Your task to perform on an android device: turn off priority inbox in the gmail app Image 0: 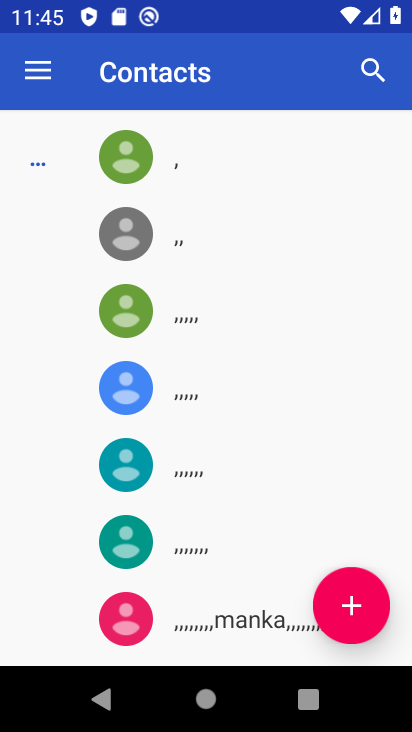
Step 0: press home button
Your task to perform on an android device: turn off priority inbox in the gmail app Image 1: 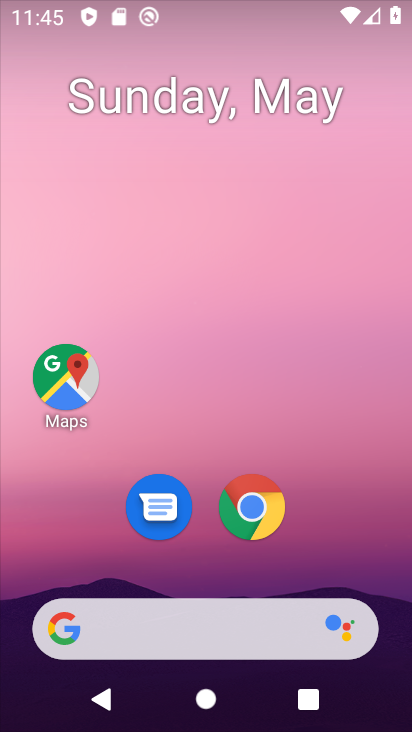
Step 1: drag from (231, 718) to (228, 182)
Your task to perform on an android device: turn off priority inbox in the gmail app Image 2: 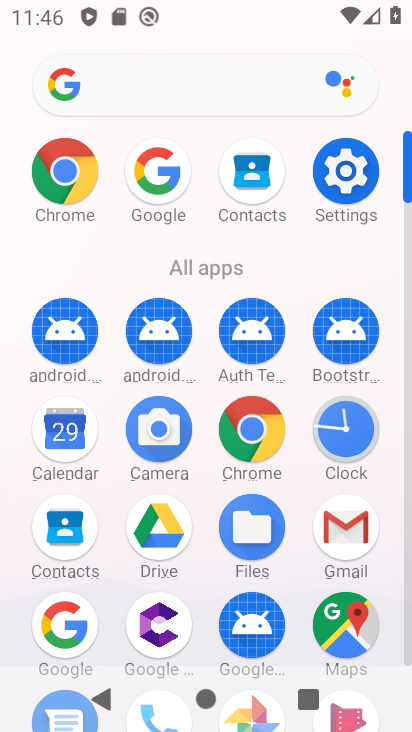
Step 2: click (346, 541)
Your task to perform on an android device: turn off priority inbox in the gmail app Image 3: 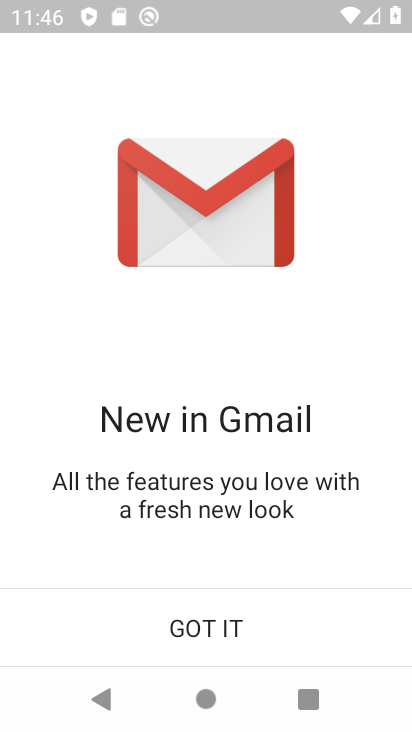
Step 3: click (191, 627)
Your task to perform on an android device: turn off priority inbox in the gmail app Image 4: 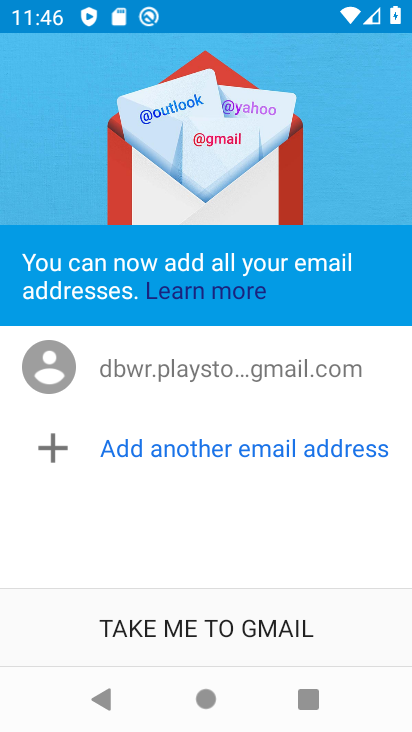
Step 4: click (191, 627)
Your task to perform on an android device: turn off priority inbox in the gmail app Image 5: 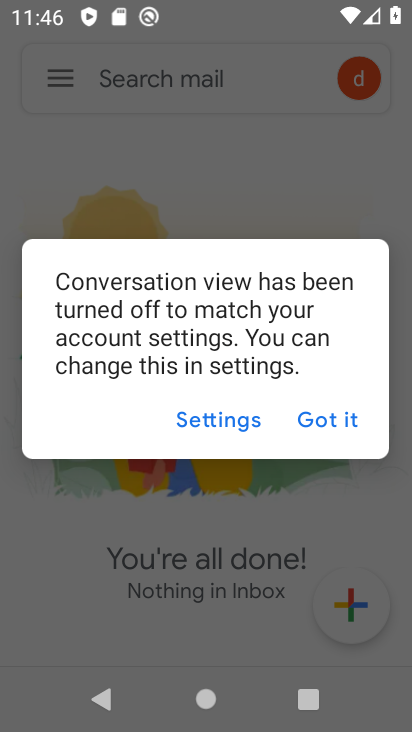
Step 5: click (321, 422)
Your task to perform on an android device: turn off priority inbox in the gmail app Image 6: 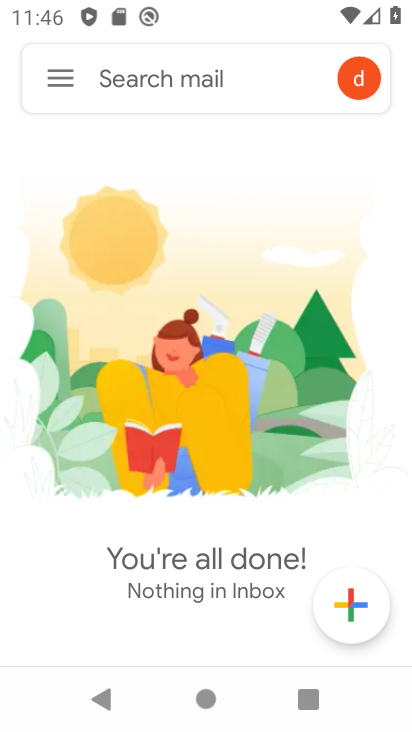
Step 6: click (62, 78)
Your task to perform on an android device: turn off priority inbox in the gmail app Image 7: 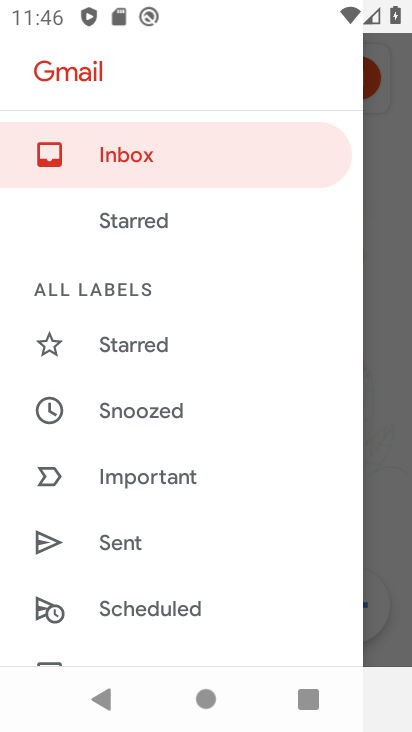
Step 7: drag from (138, 630) to (145, 84)
Your task to perform on an android device: turn off priority inbox in the gmail app Image 8: 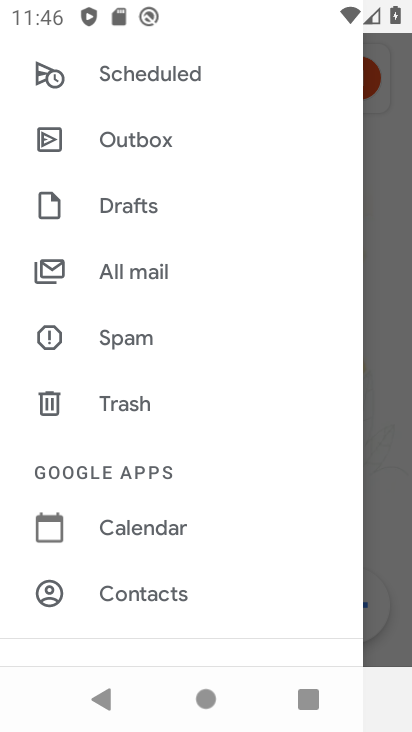
Step 8: drag from (128, 625) to (126, 153)
Your task to perform on an android device: turn off priority inbox in the gmail app Image 9: 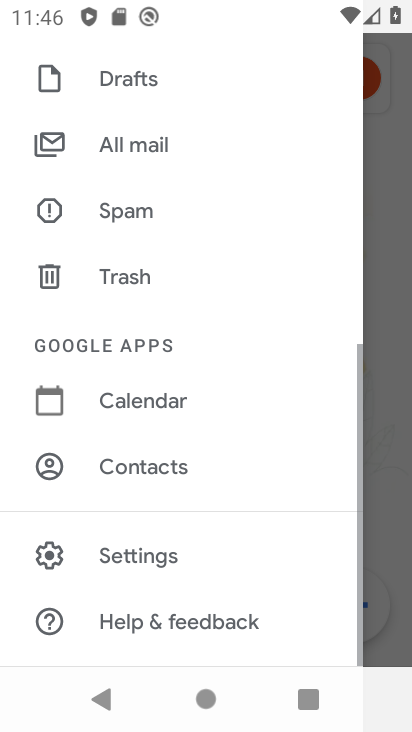
Step 9: click (156, 554)
Your task to perform on an android device: turn off priority inbox in the gmail app Image 10: 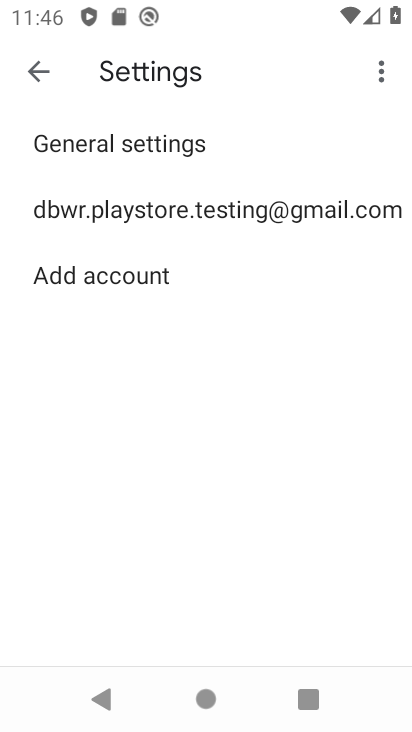
Step 10: click (203, 212)
Your task to perform on an android device: turn off priority inbox in the gmail app Image 11: 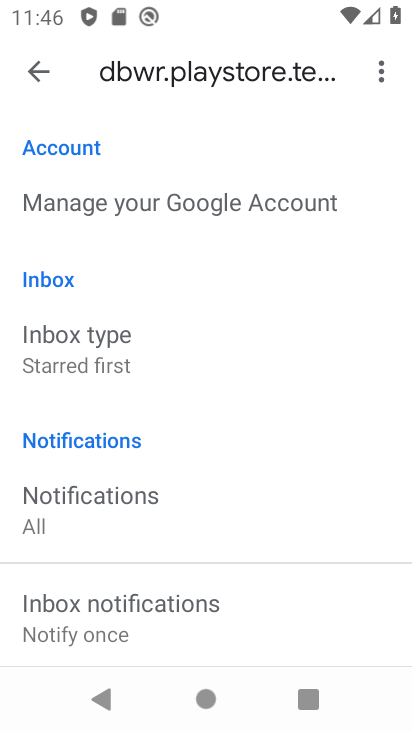
Step 11: task complete